Your task to perform on an android device: check android version Image 0: 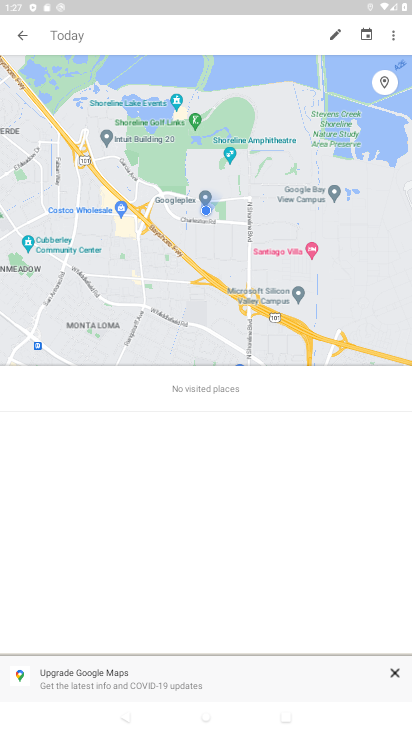
Step 0: press home button
Your task to perform on an android device: check android version Image 1: 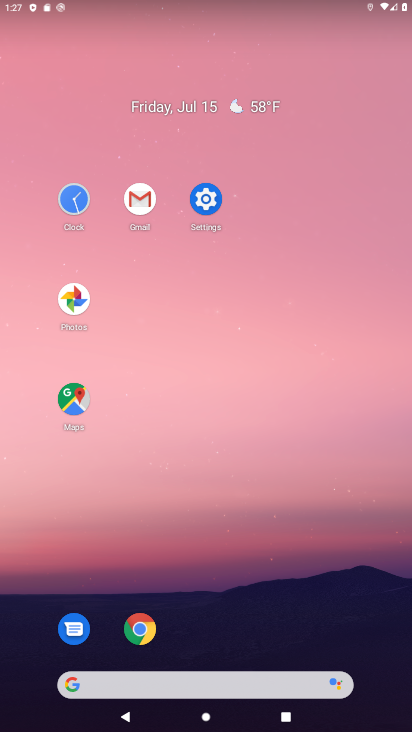
Step 1: click (196, 195)
Your task to perform on an android device: check android version Image 2: 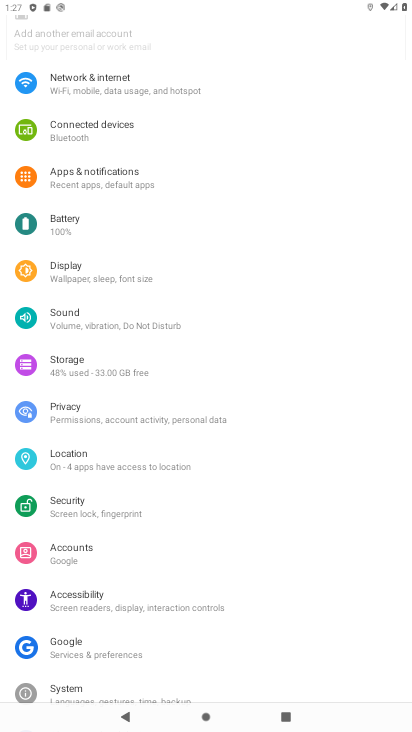
Step 2: drag from (253, 575) to (264, 185)
Your task to perform on an android device: check android version Image 3: 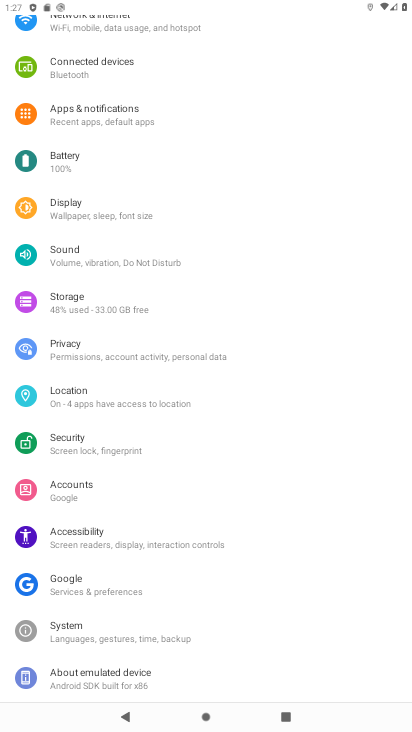
Step 3: click (132, 679)
Your task to perform on an android device: check android version Image 4: 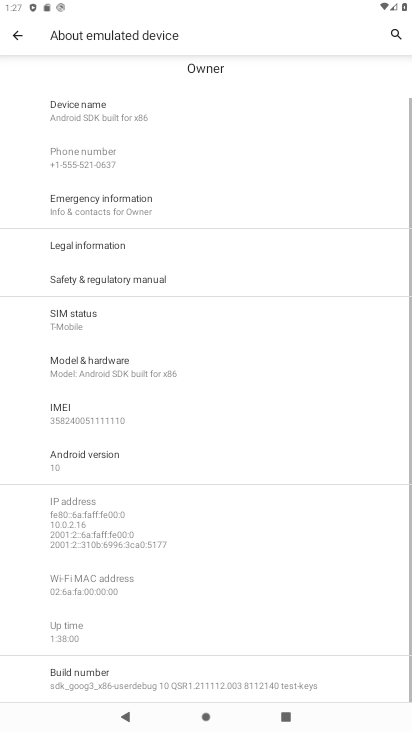
Step 4: click (122, 470)
Your task to perform on an android device: check android version Image 5: 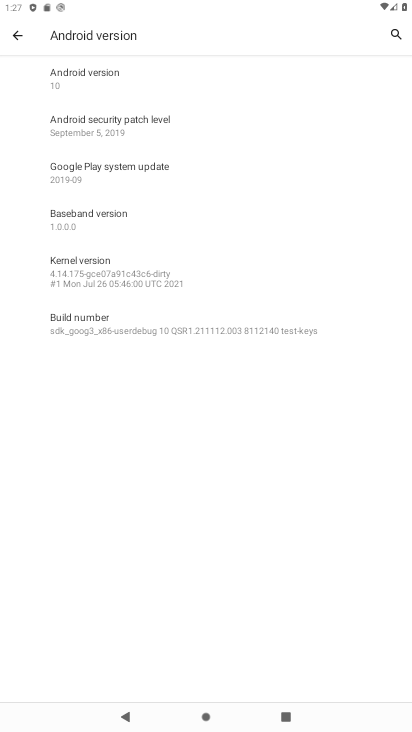
Step 5: task complete